Your task to perform on an android device: change the clock display to analog Image 0: 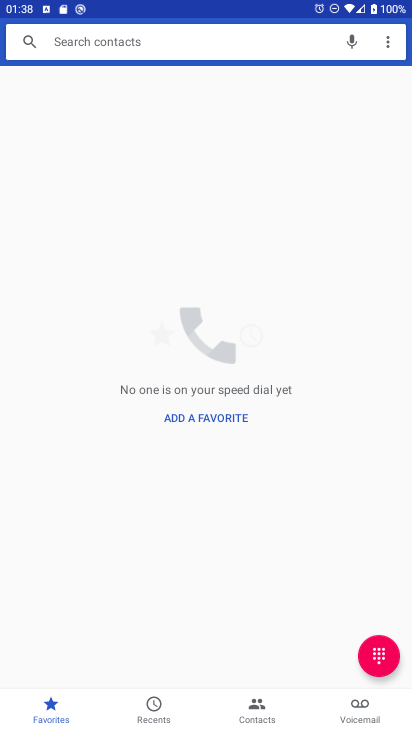
Step 0: press home button
Your task to perform on an android device: change the clock display to analog Image 1: 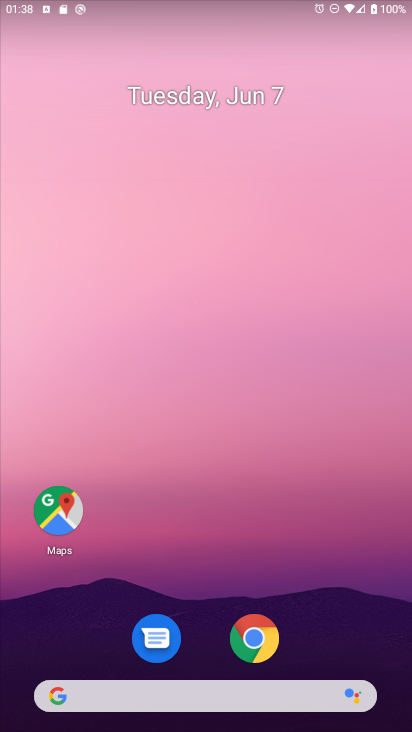
Step 1: drag from (221, 723) to (239, 168)
Your task to perform on an android device: change the clock display to analog Image 2: 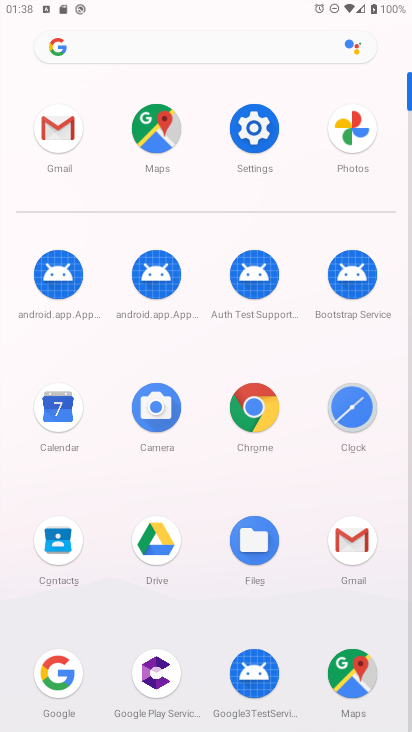
Step 2: click (344, 421)
Your task to perform on an android device: change the clock display to analog Image 3: 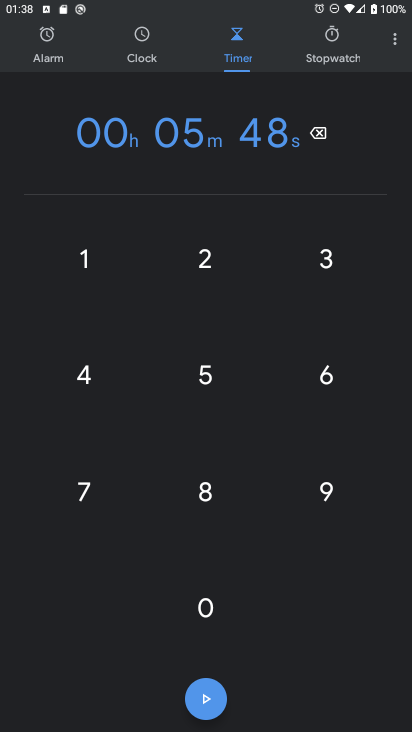
Step 3: click (387, 43)
Your task to perform on an android device: change the clock display to analog Image 4: 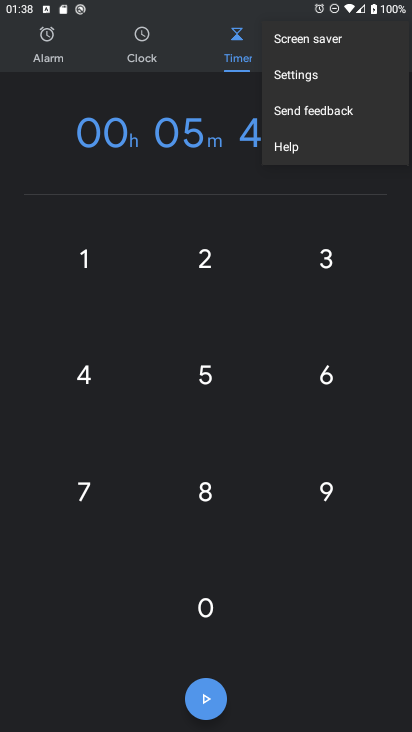
Step 4: click (307, 77)
Your task to perform on an android device: change the clock display to analog Image 5: 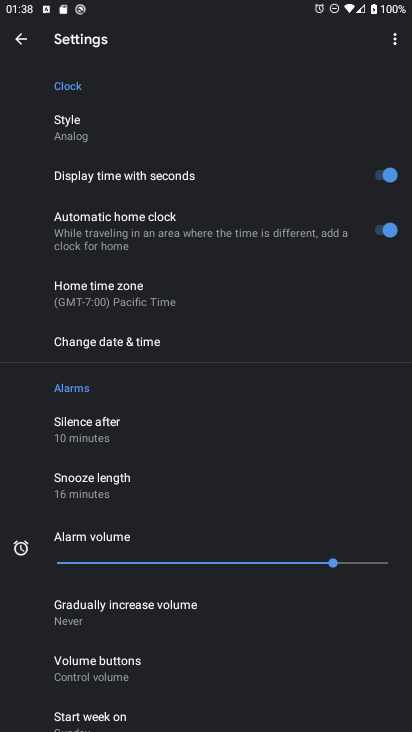
Step 5: click (97, 131)
Your task to perform on an android device: change the clock display to analog Image 6: 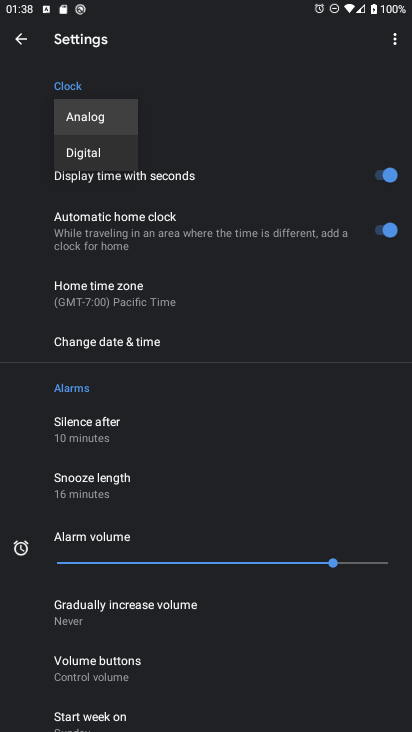
Step 6: click (95, 115)
Your task to perform on an android device: change the clock display to analog Image 7: 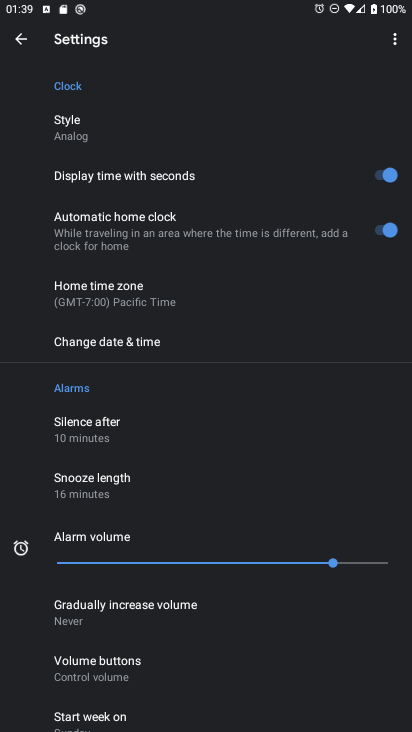
Step 7: task complete